Your task to perform on an android device: toggle notifications settings in the gmail app Image 0: 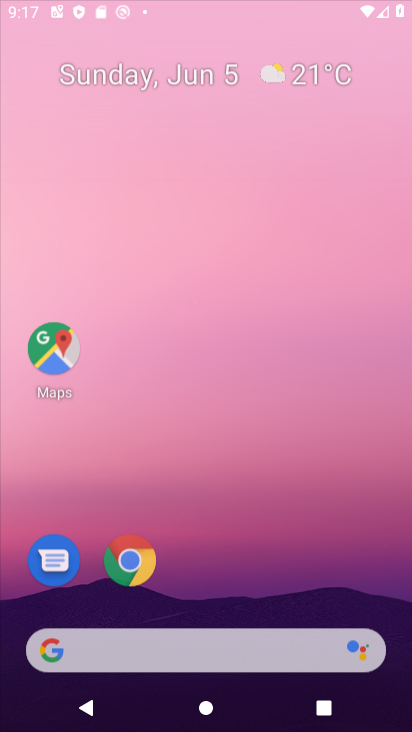
Step 0: drag from (303, 399) to (303, 315)
Your task to perform on an android device: toggle notifications settings in the gmail app Image 1: 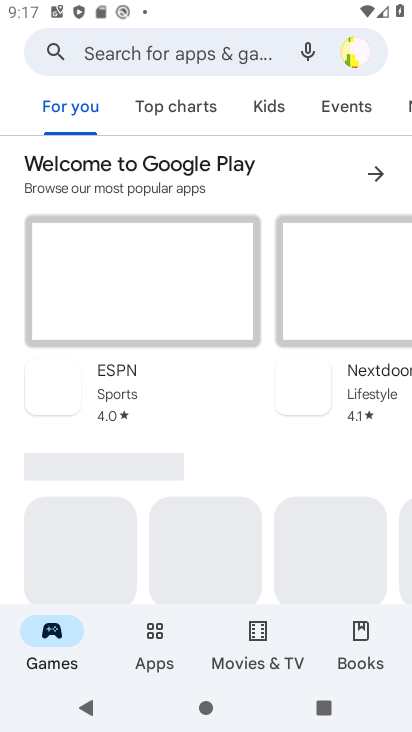
Step 1: press home button
Your task to perform on an android device: toggle notifications settings in the gmail app Image 2: 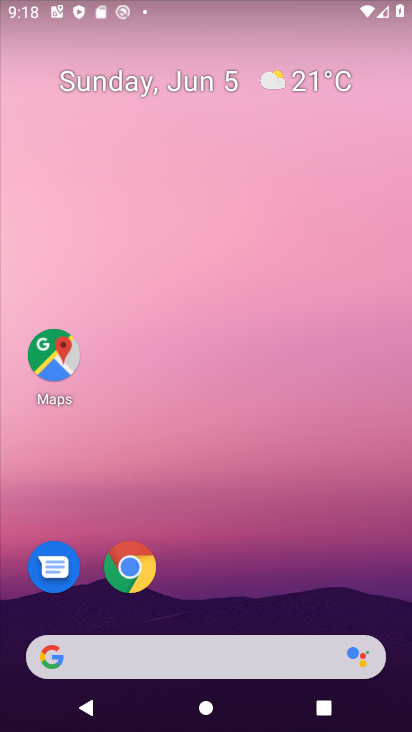
Step 2: drag from (209, 615) to (220, 368)
Your task to perform on an android device: toggle notifications settings in the gmail app Image 3: 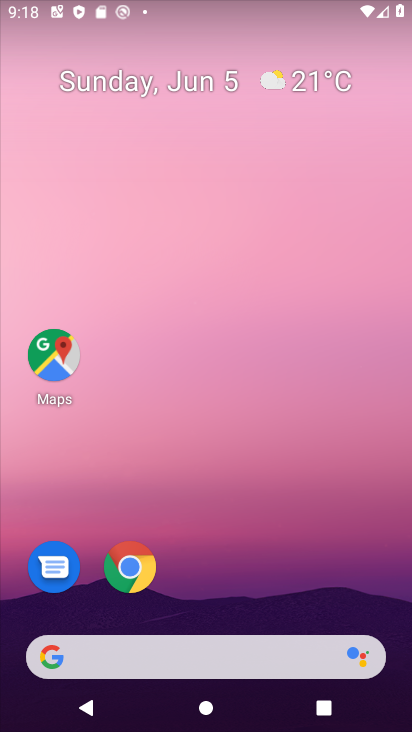
Step 3: drag from (246, 519) to (246, 270)
Your task to perform on an android device: toggle notifications settings in the gmail app Image 4: 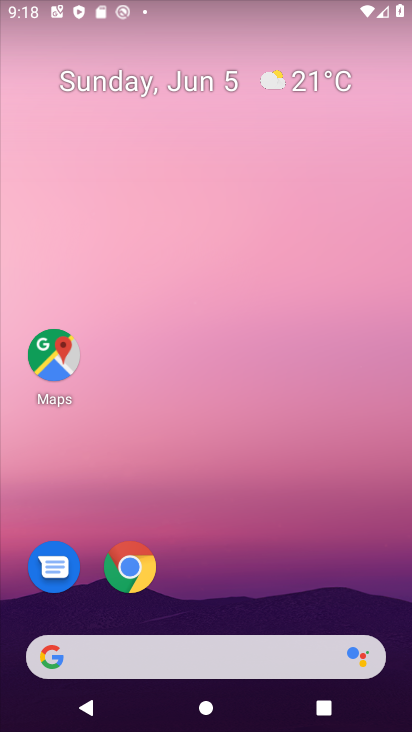
Step 4: drag from (172, 642) to (236, 239)
Your task to perform on an android device: toggle notifications settings in the gmail app Image 5: 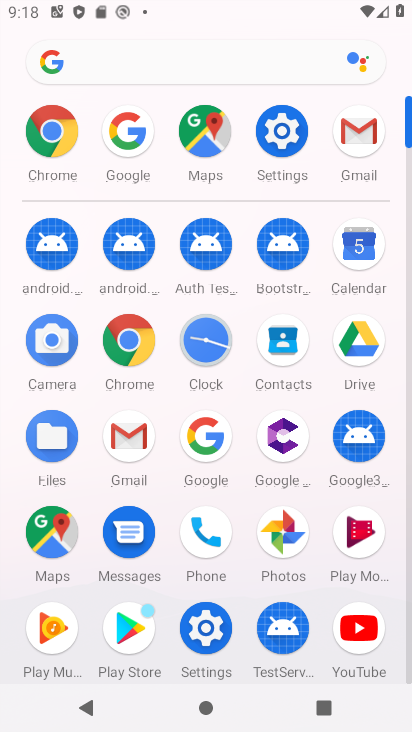
Step 5: click (124, 441)
Your task to perform on an android device: toggle notifications settings in the gmail app Image 6: 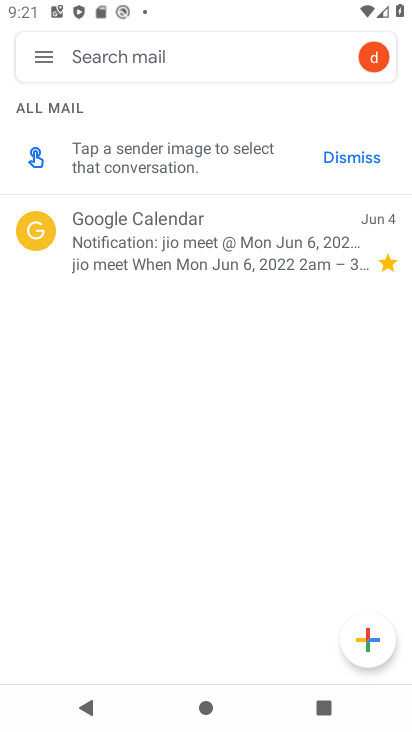
Step 6: press home button
Your task to perform on an android device: toggle notifications settings in the gmail app Image 7: 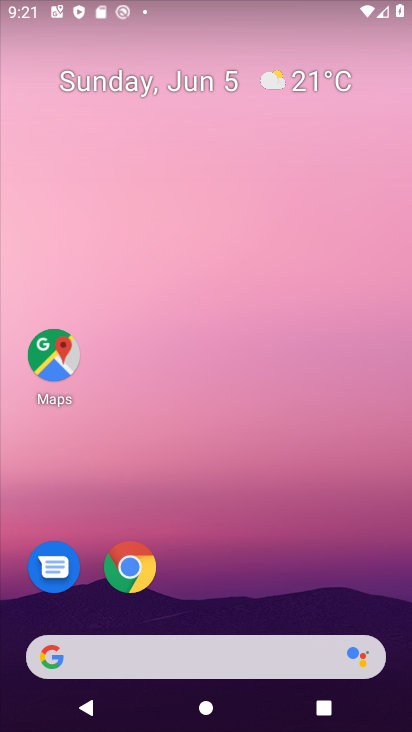
Step 7: drag from (135, 607) to (135, 309)
Your task to perform on an android device: toggle notifications settings in the gmail app Image 8: 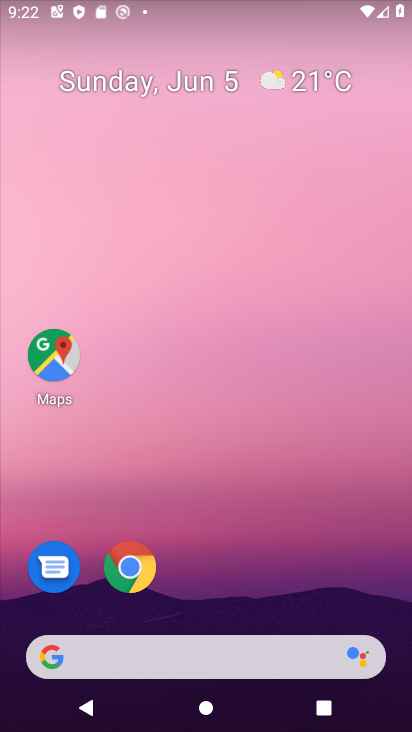
Step 8: drag from (197, 594) to (196, 141)
Your task to perform on an android device: toggle notifications settings in the gmail app Image 9: 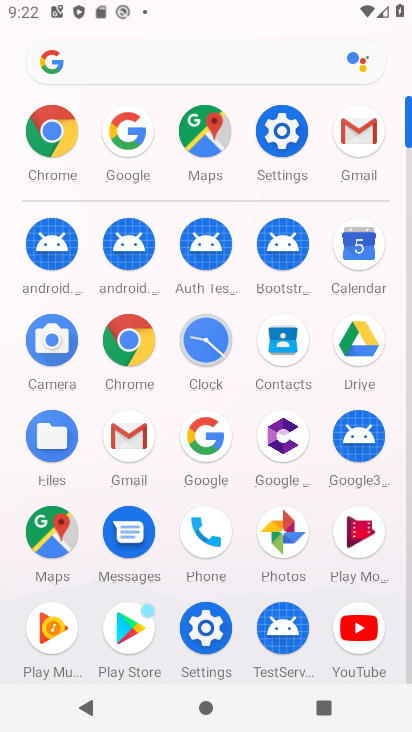
Step 9: click (347, 153)
Your task to perform on an android device: toggle notifications settings in the gmail app Image 10: 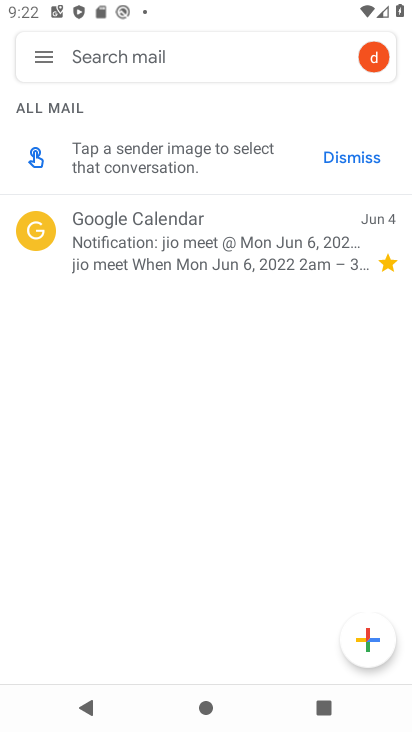
Step 10: click (37, 66)
Your task to perform on an android device: toggle notifications settings in the gmail app Image 11: 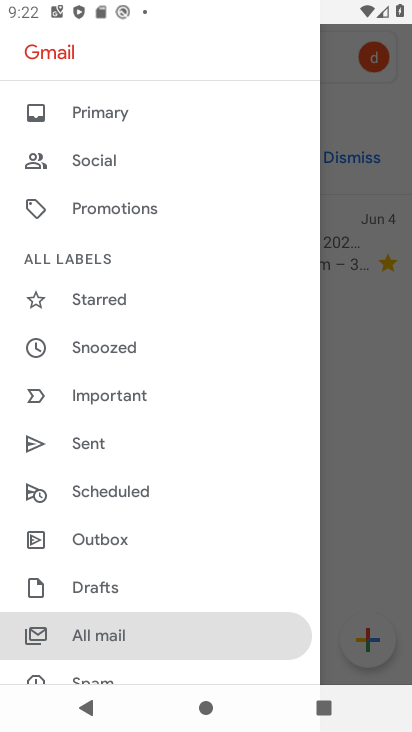
Step 11: click (147, 267)
Your task to perform on an android device: toggle notifications settings in the gmail app Image 12: 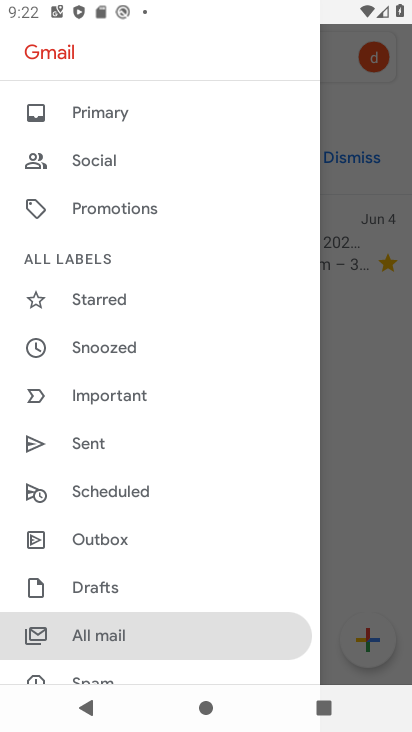
Step 12: drag from (139, 594) to (190, 299)
Your task to perform on an android device: toggle notifications settings in the gmail app Image 13: 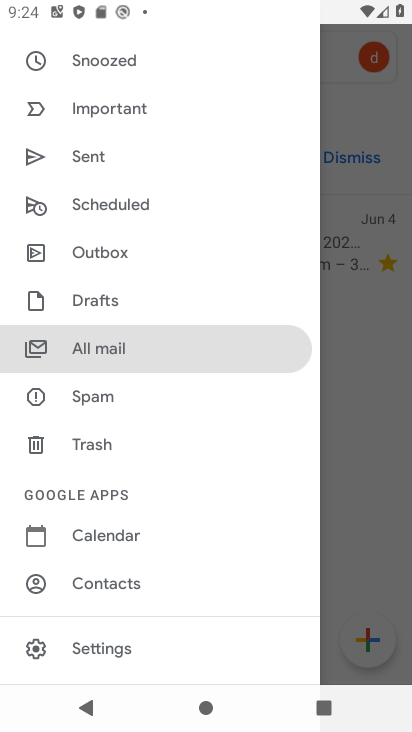
Step 13: click (129, 656)
Your task to perform on an android device: toggle notifications settings in the gmail app Image 14: 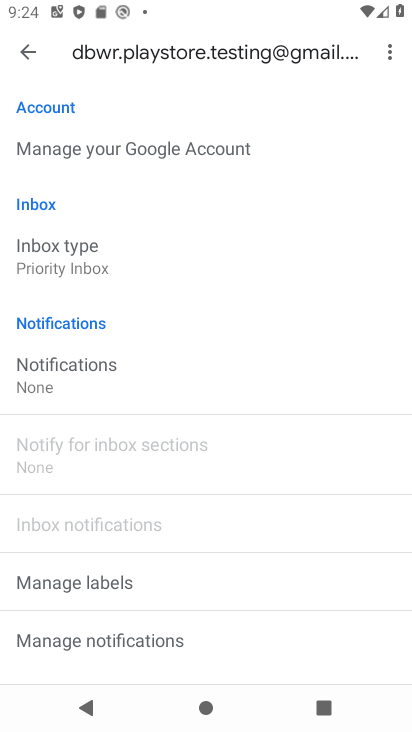
Step 14: click (27, 52)
Your task to perform on an android device: toggle notifications settings in the gmail app Image 15: 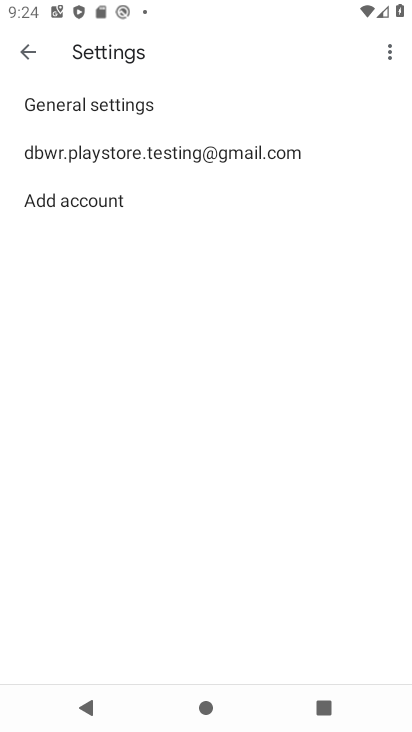
Step 15: click (54, 106)
Your task to perform on an android device: toggle notifications settings in the gmail app Image 16: 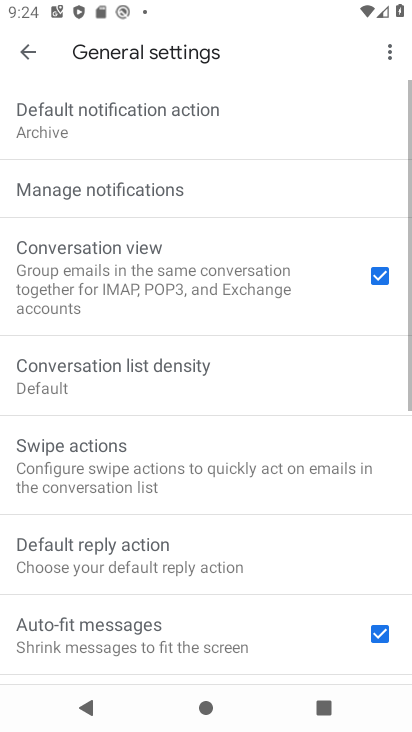
Step 16: click (82, 188)
Your task to perform on an android device: toggle notifications settings in the gmail app Image 17: 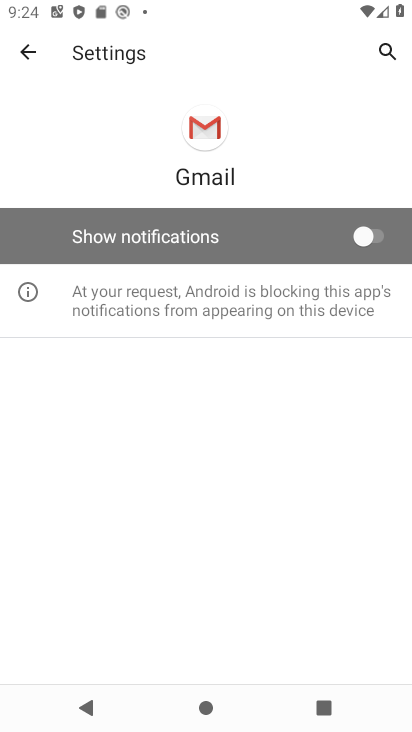
Step 17: click (371, 235)
Your task to perform on an android device: toggle notifications settings in the gmail app Image 18: 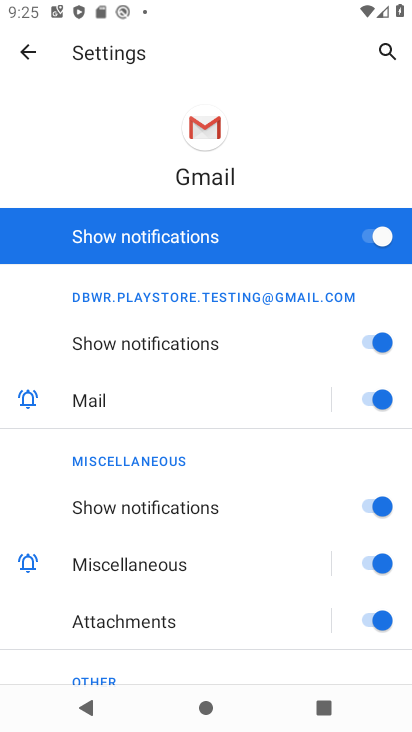
Step 18: task complete